Your task to perform on an android device: change timer sound Image 0: 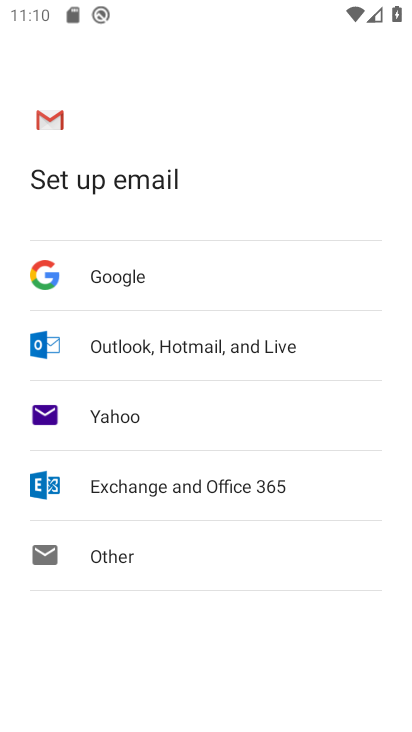
Step 0: press home button
Your task to perform on an android device: change timer sound Image 1: 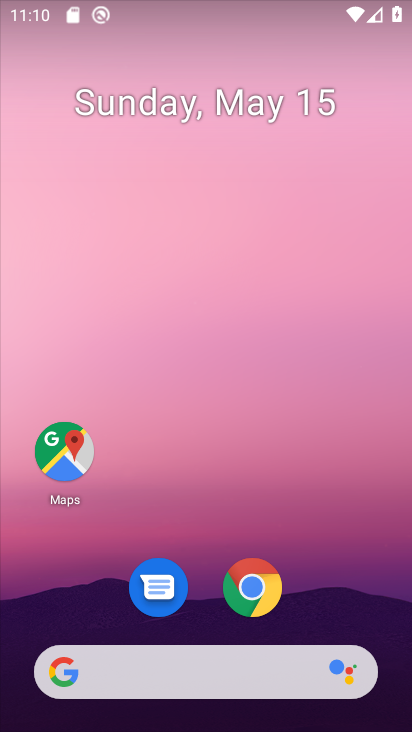
Step 1: drag from (207, 625) to (207, 242)
Your task to perform on an android device: change timer sound Image 2: 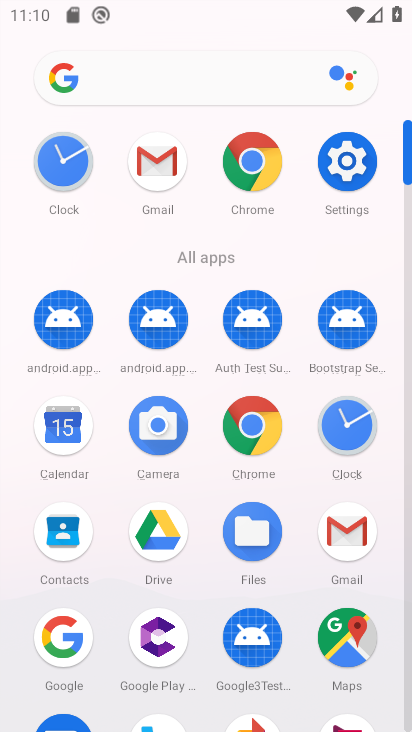
Step 2: click (335, 433)
Your task to perform on an android device: change timer sound Image 3: 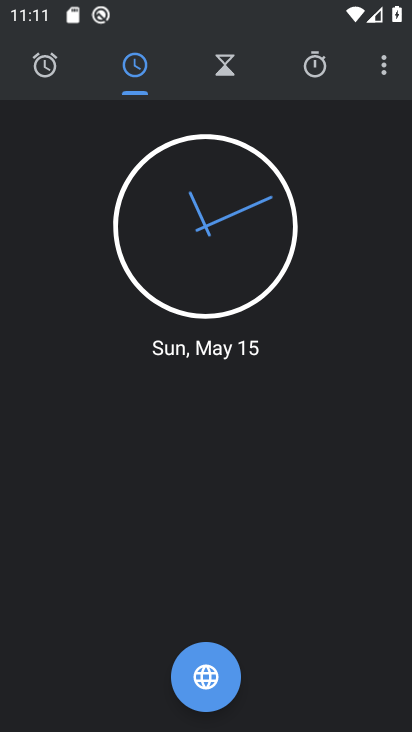
Step 3: click (227, 78)
Your task to perform on an android device: change timer sound Image 4: 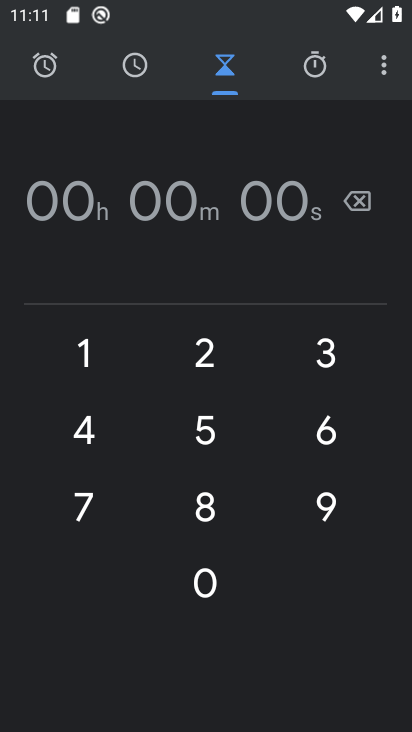
Step 4: click (297, 196)
Your task to perform on an android device: change timer sound Image 5: 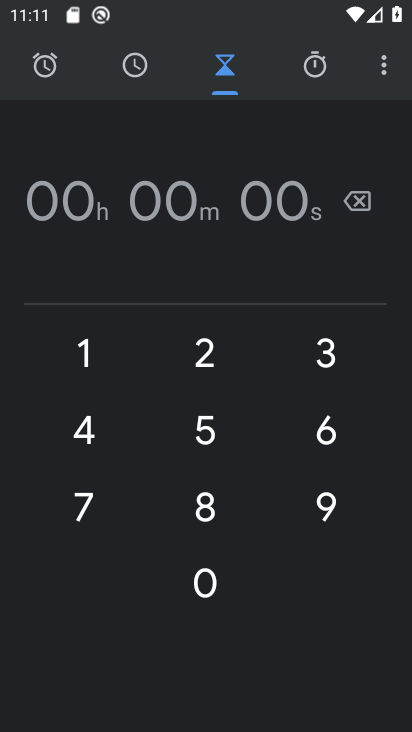
Step 5: type "23"
Your task to perform on an android device: change timer sound Image 6: 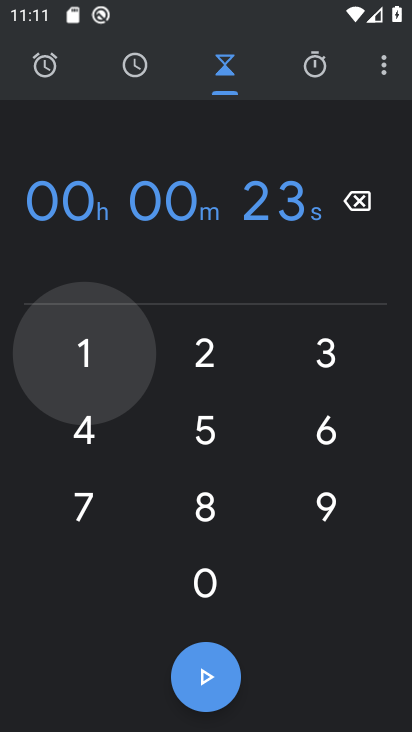
Step 6: click (224, 666)
Your task to perform on an android device: change timer sound Image 7: 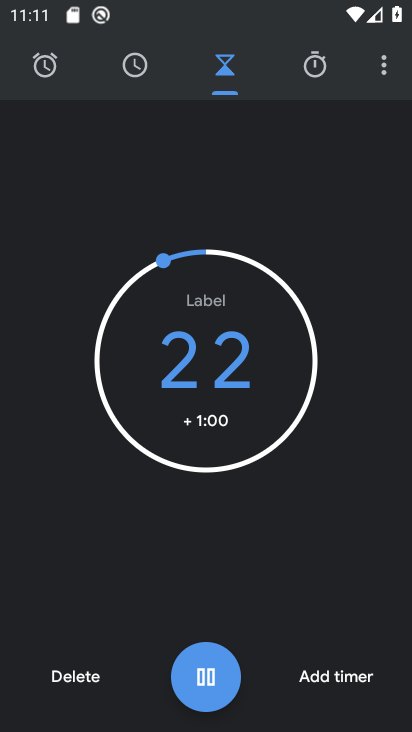
Step 7: task complete